Your task to perform on an android device: turn on javascript in the chrome app Image 0: 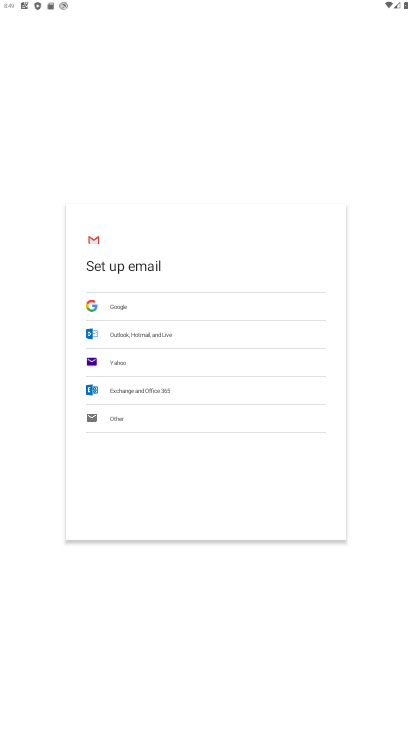
Step 0: press home button
Your task to perform on an android device: turn on javascript in the chrome app Image 1: 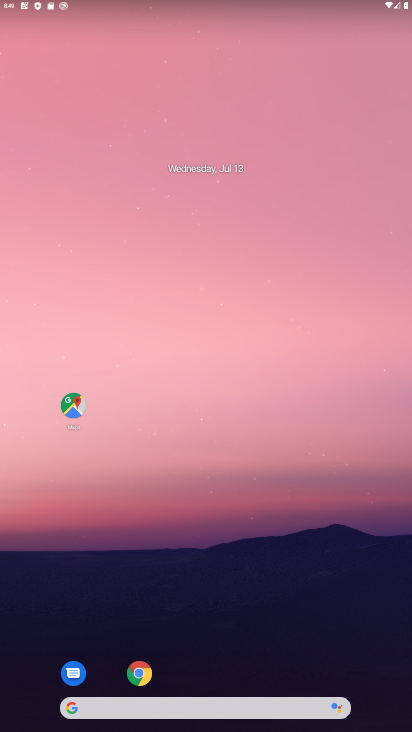
Step 1: click (136, 667)
Your task to perform on an android device: turn on javascript in the chrome app Image 2: 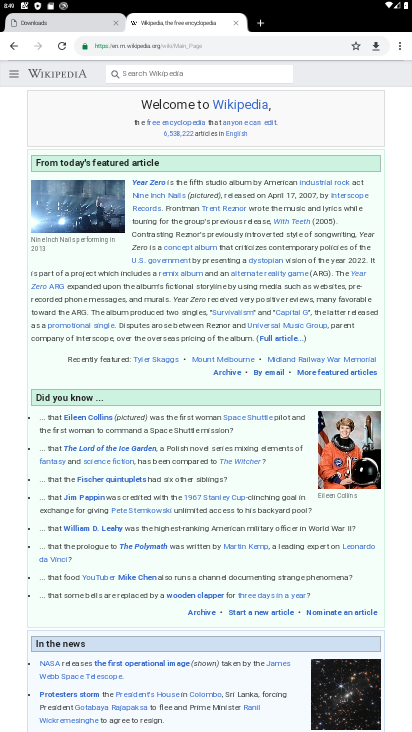
Step 2: click (403, 49)
Your task to perform on an android device: turn on javascript in the chrome app Image 3: 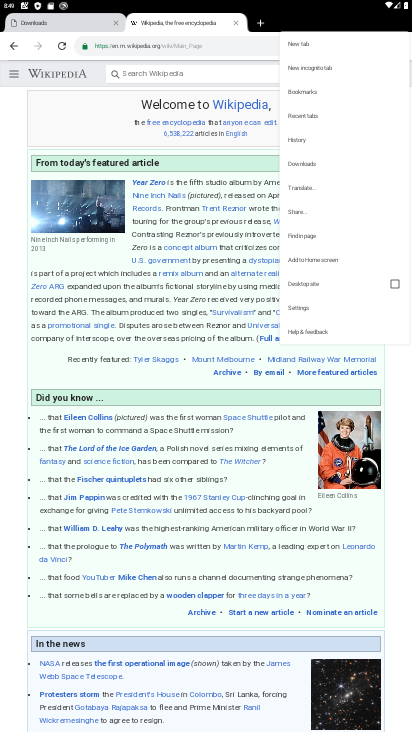
Step 3: click (306, 305)
Your task to perform on an android device: turn on javascript in the chrome app Image 4: 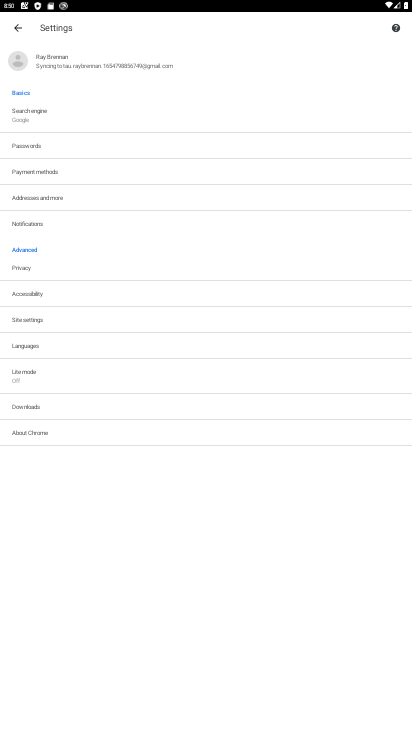
Step 4: click (73, 320)
Your task to perform on an android device: turn on javascript in the chrome app Image 5: 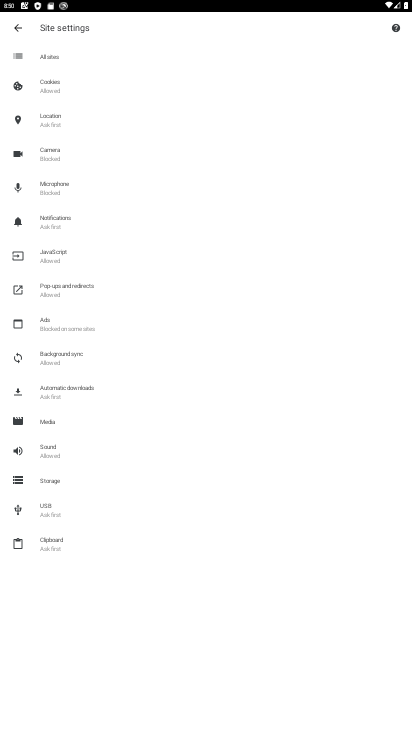
Step 5: click (92, 251)
Your task to perform on an android device: turn on javascript in the chrome app Image 6: 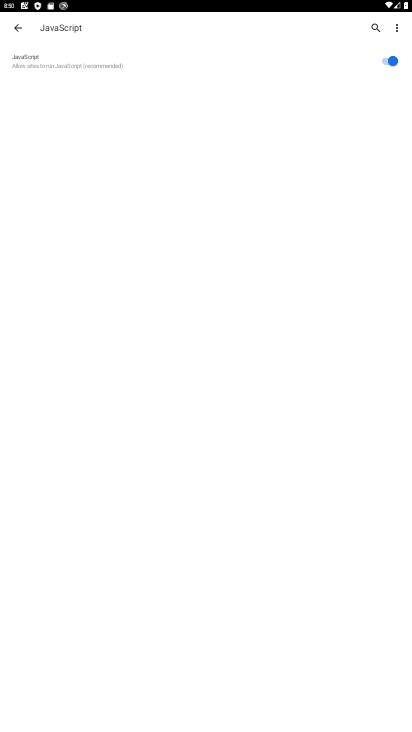
Step 6: click (71, 260)
Your task to perform on an android device: turn on javascript in the chrome app Image 7: 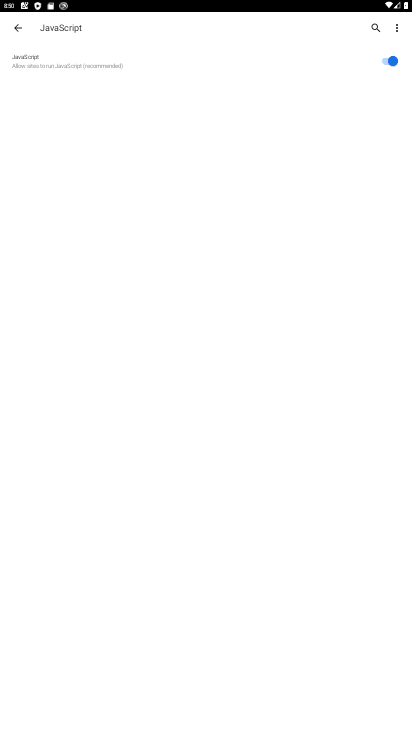
Step 7: task complete